Your task to perform on an android device: Open Youtube and go to the subscriptions tab Image 0: 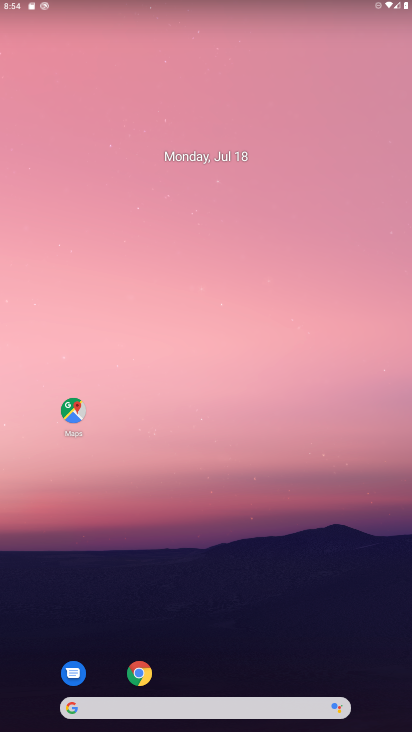
Step 0: press home button
Your task to perform on an android device: Open Youtube and go to the subscriptions tab Image 1: 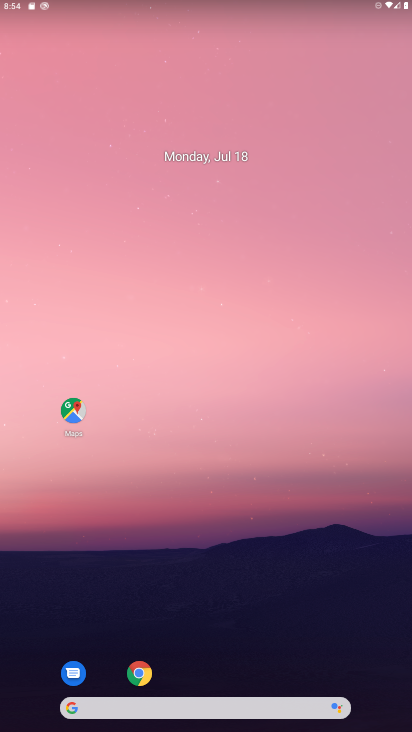
Step 1: drag from (237, 640) to (237, 12)
Your task to perform on an android device: Open Youtube and go to the subscriptions tab Image 2: 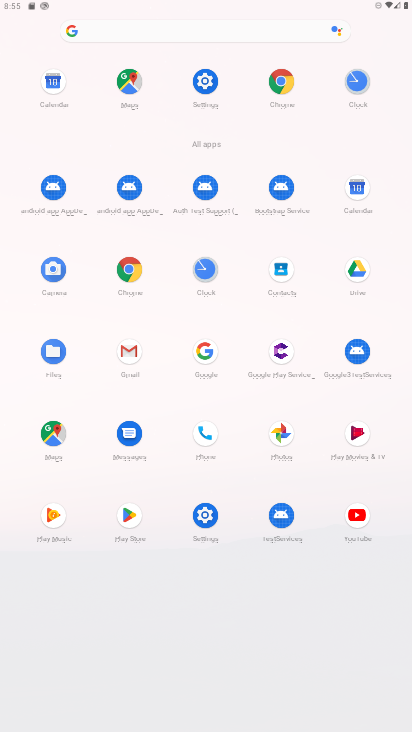
Step 2: click (348, 518)
Your task to perform on an android device: Open Youtube and go to the subscriptions tab Image 3: 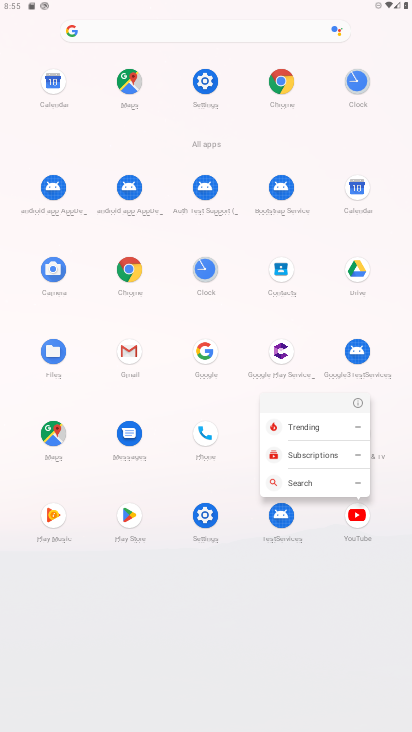
Step 3: click (353, 513)
Your task to perform on an android device: Open Youtube and go to the subscriptions tab Image 4: 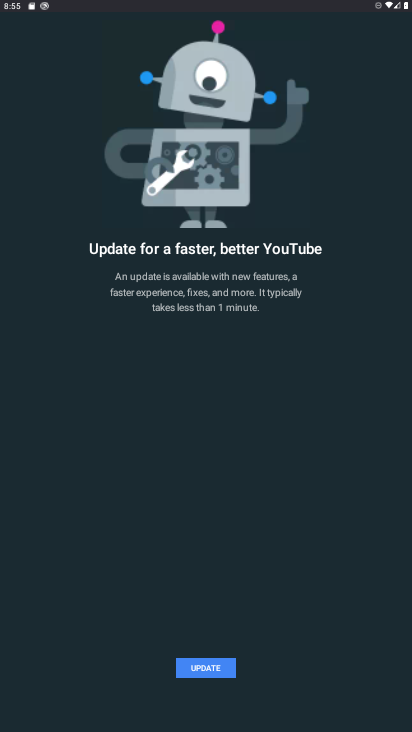
Step 4: click (212, 669)
Your task to perform on an android device: Open Youtube and go to the subscriptions tab Image 5: 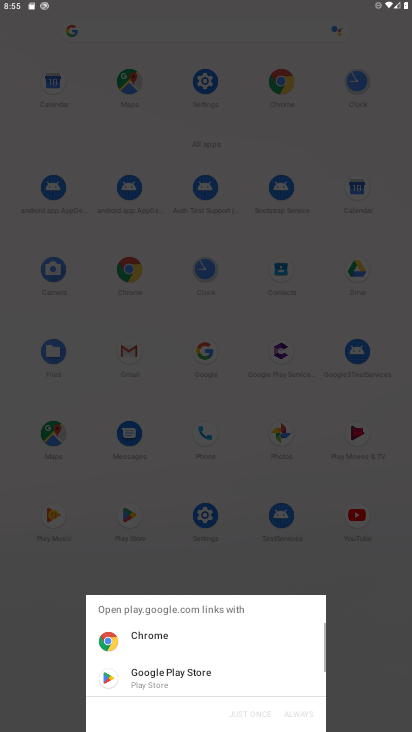
Step 5: click (174, 673)
Your task to perform on an android device: Open Youtube and go to the subscriptions tab Image 6: 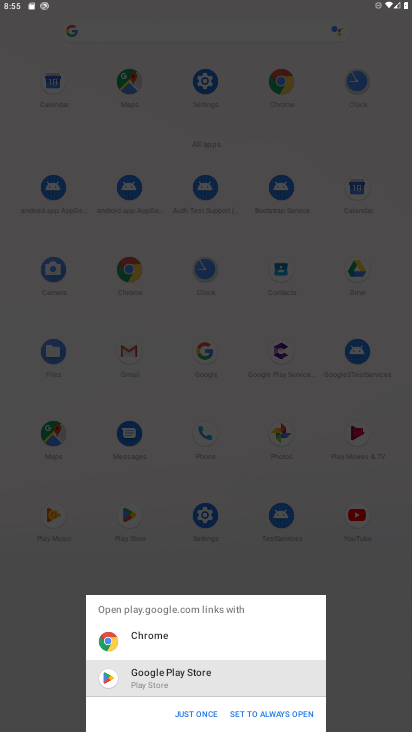
Step 6: click (199, 719)
Your task to perform on an android device: Open Youtube and go to the subscriptions tab Image 7: 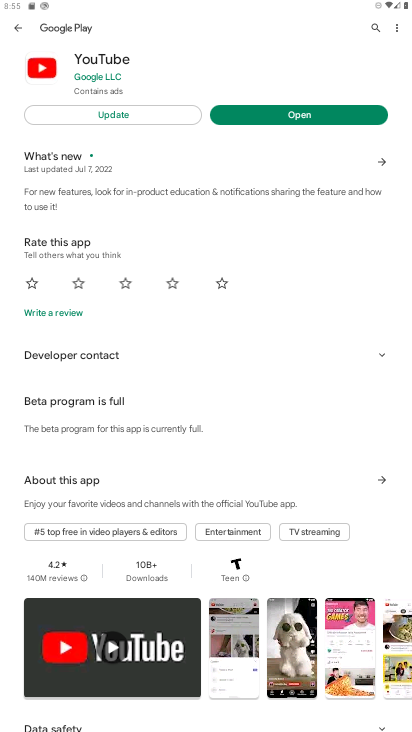
Step 7: click (95, 115)
Your task to perform on an android device: Open Youtube and go to the subscriptions tab Image 8: 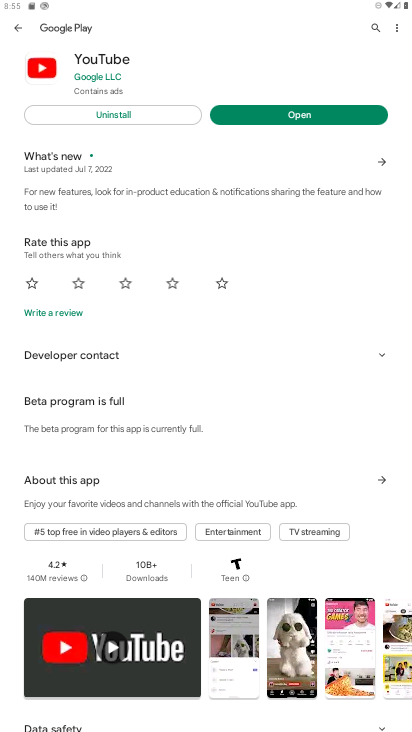
Step 8: click (260, 111)
Your task to perform on an android device: Open Youtube and go to the subscriptions tab Image 9: 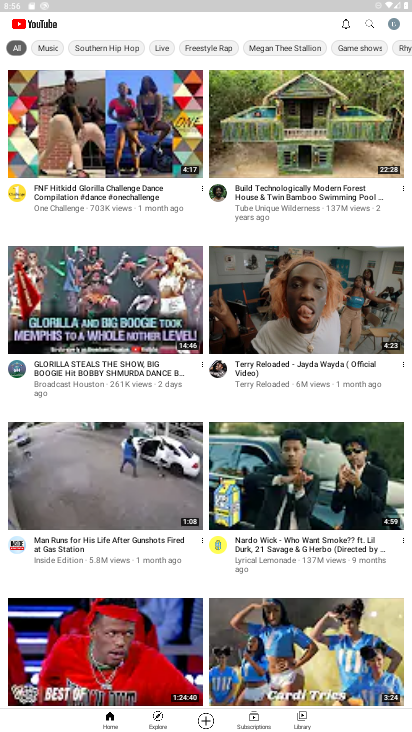
Step 9: click (248, 714)
Your task to perform on an android device: Open Youtube and go to the subscriptions tab Image 10: 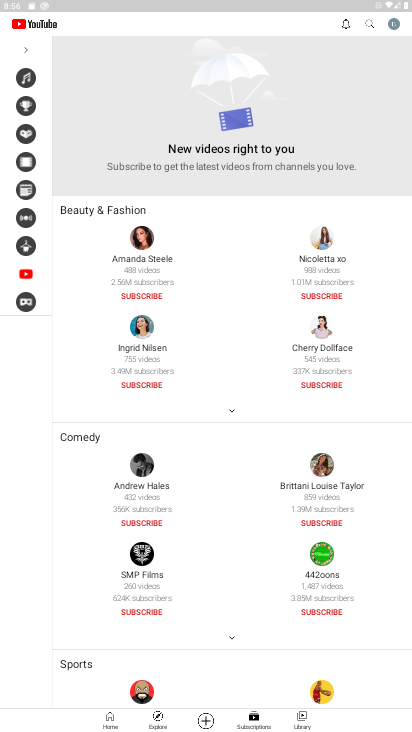
Step 10: task complete